Your task to perform on an android device: Search for asus zenbook on newegg.com, select the first entry, and add it to the cart. Image 0: 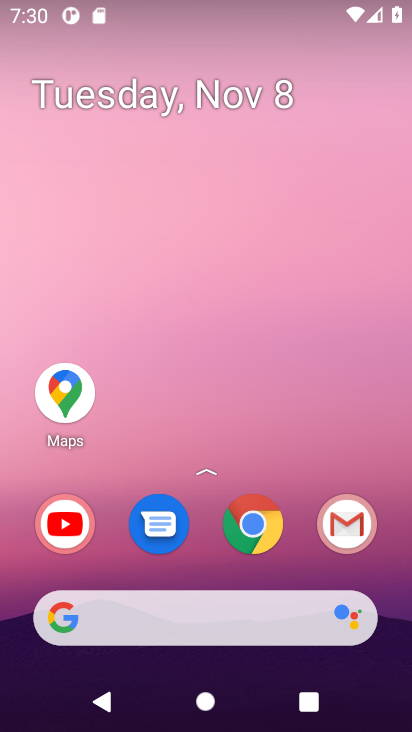
Step 0: click (256, 537)
Your task to perform on an android device: Search for asus zenbook on newegg.com, select the first entry, and add it to the cart. Image 1: 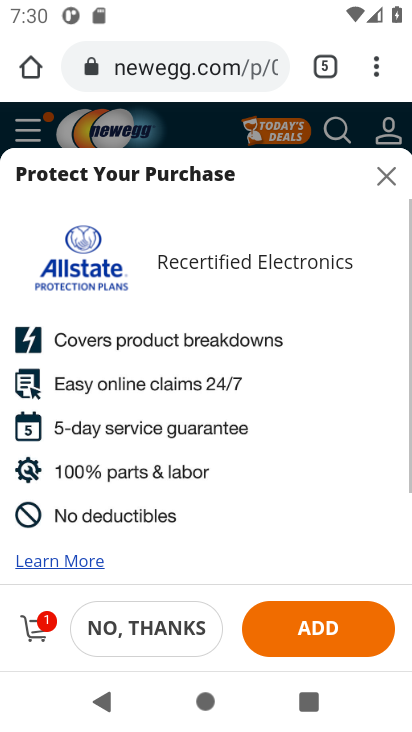
Step 1: click (392, 179)
Your task to perform on an android device: Search for asus zenbook on newegg.com, select the first entry, and add it to the cart. Image 2: 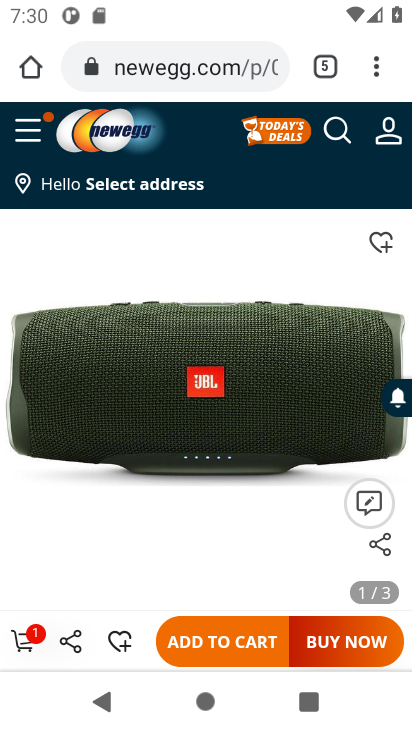
Step 2: click (337, 130)
Your task to perform on an android device: Search for asus zenbook on newegg.com, select the first entry, and add it to the cart. Image 3: 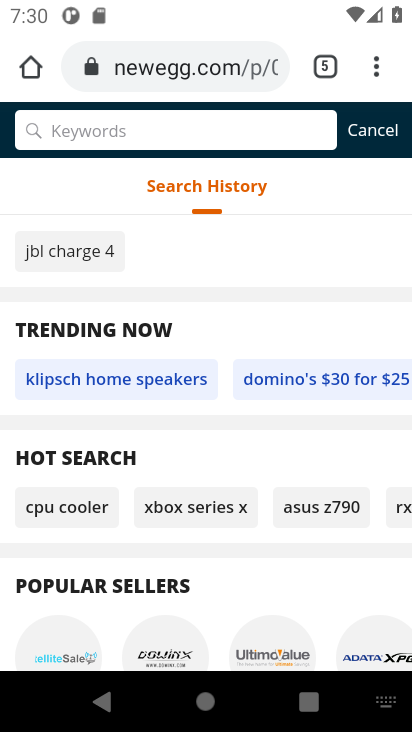
Step 3: type "asus zenbook "
Your task to perform on an android device: Search for asus zenbook on newegg.com, select the first entry, and add it to the cart. Image 4: 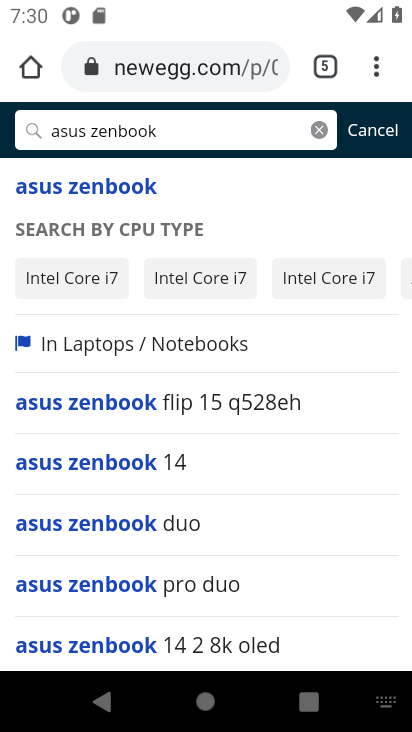
Step 4: click (108, 187)
Your task to perform on an android device: Search for asus zenbook on newegg.com, select the first entry, and add it to the cart. Image 5: 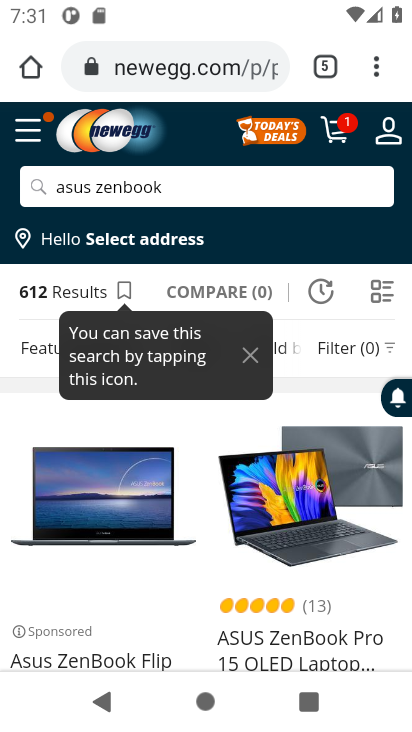
Step 5: drag from (92, 603) to (111, 481)
Your task to perform on an android device: Search for asus zenbook on newegg.com, select the first entry, and add it to the cart. Image 6: 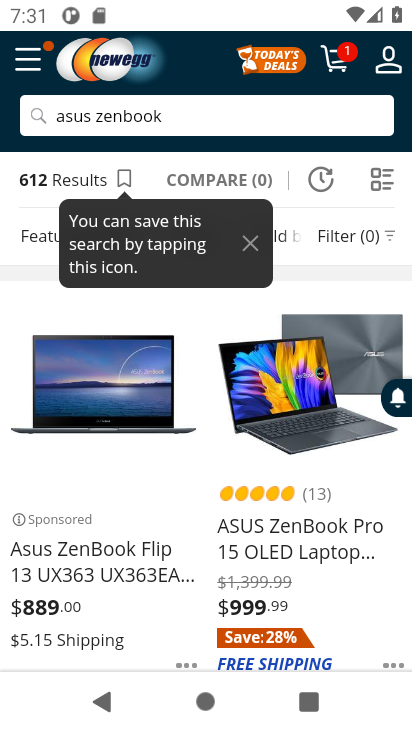
Step 6: drag from (82, 563) to (96, 464)
Your task to perform on an android device: Search for asus zenbook on newegg.com, select the first entry, and add it to the cart. Image 7: 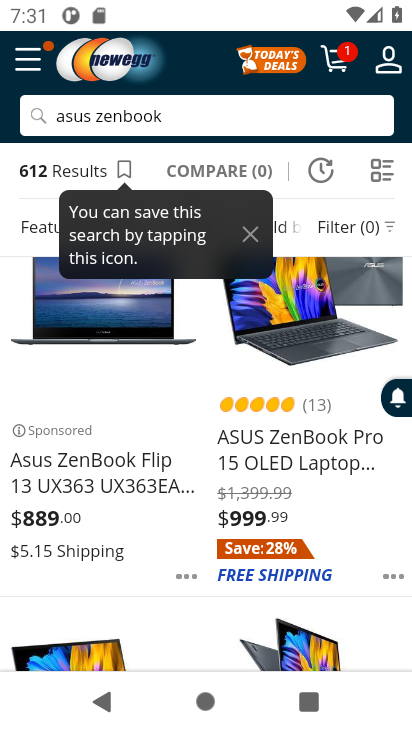
Step 7: click (86, 405)
Your task to perform on an android device: Search for asus zenbook on newegg.com, select the first entry, and add it to the cart. Image 8: 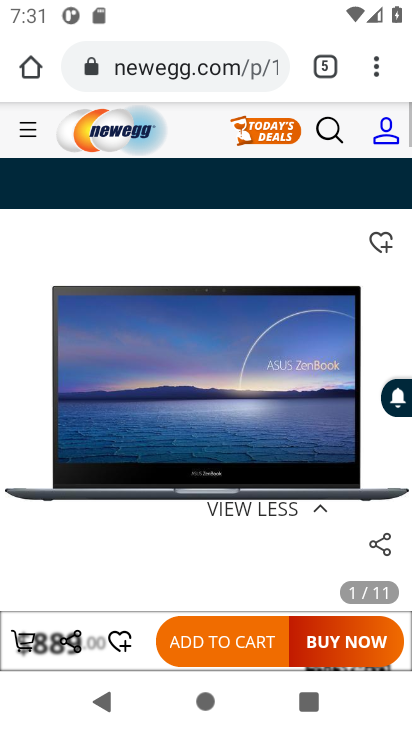
Step 8: click (195, 639)
Your task to perform on an android device: Search for asus zenbook on newegg.com, select the first entry, and add it to the cart. Image 9: 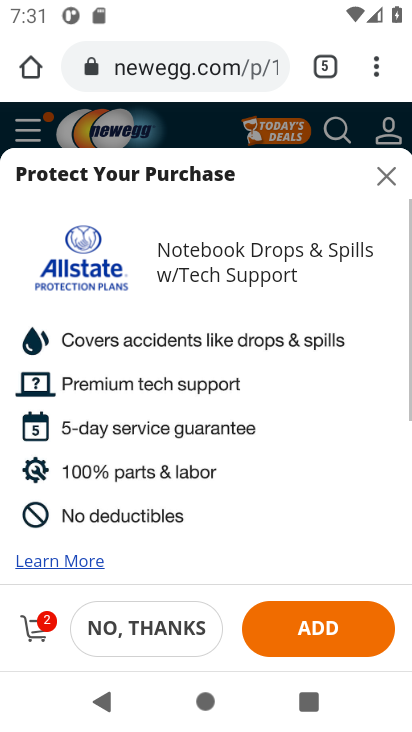
Step 9: task complete